Your task to perform on an android device: delete location history Image 0: 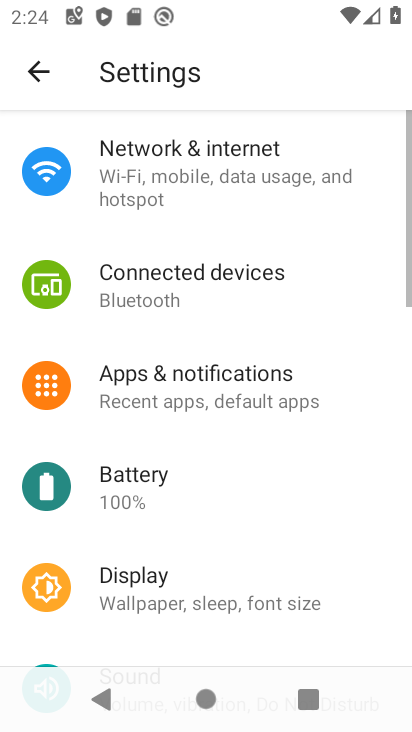
Step 0: press home button
Your task to perform on an android device: delete location history Image 1: 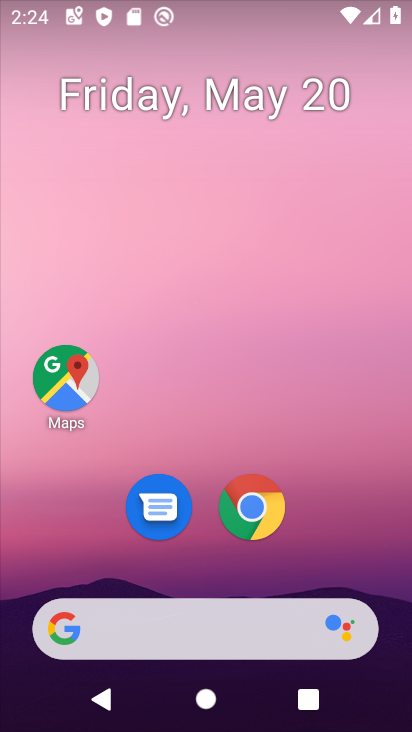
Step 1: drag from (213, 696) to (216, 213)
Your task to perform on an android device: delete location history Image 2: 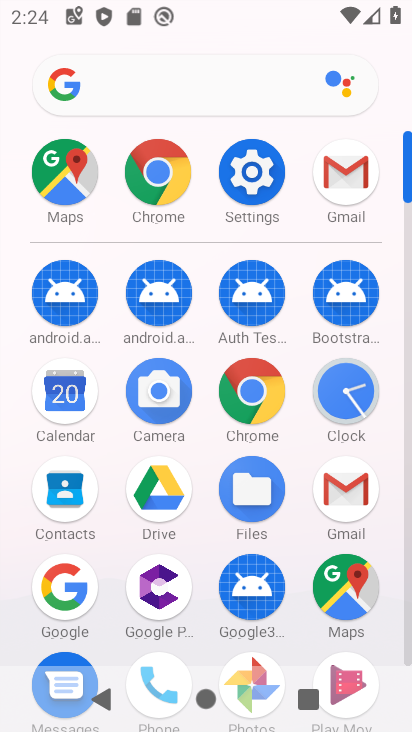
Step 2: click (348, 574)
Your task to perform on an android device: delete location history Image 3: 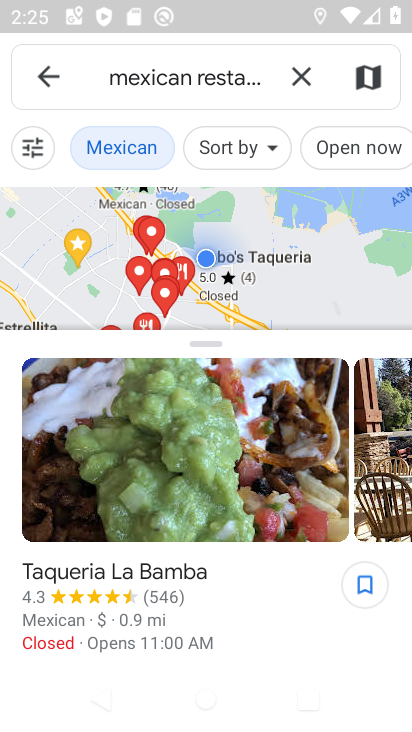
Step 3: click (46, 78)
Your task to perform on an android device: delete location history Image 4: 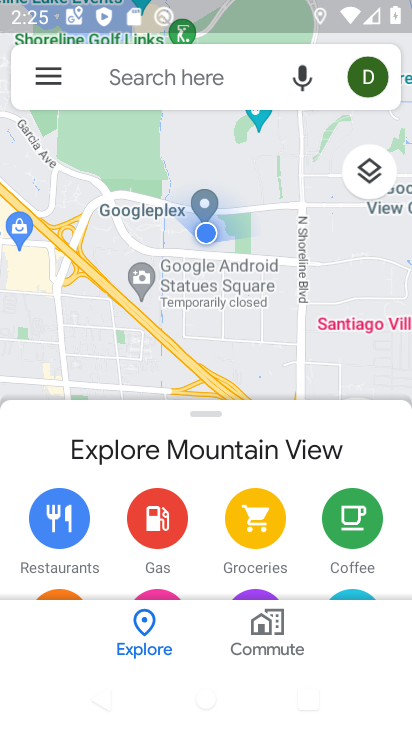
Step 4: click (52, 73)
Your task to perform on an android device: delete location history Image 5: 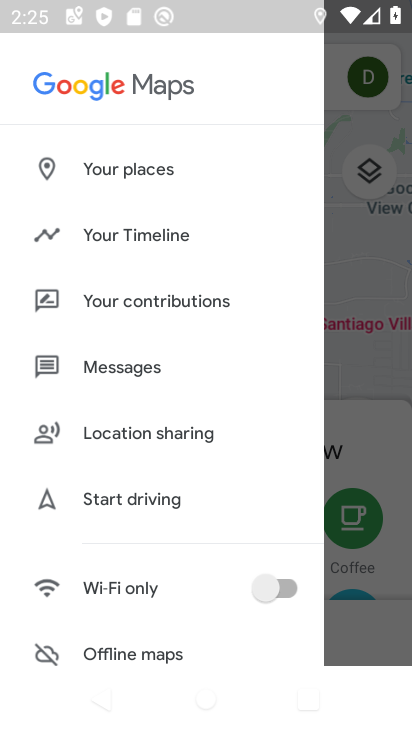
Step 5: click (129, 235)
Your task to perform on an android device: delete location history Image 6: 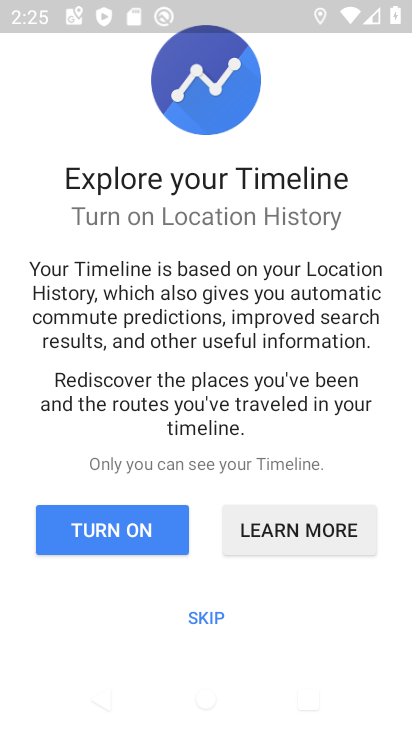
Step 6: click (210, 613)
Your task to perform on an android device: delete location history Image 7: 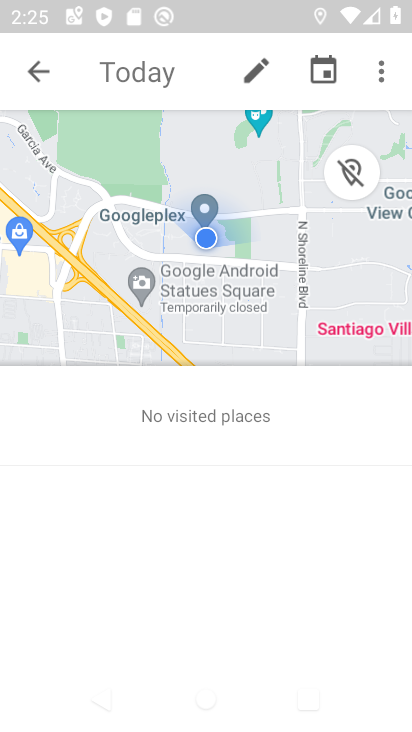
Step 7: click (381, 76)
Your task to perform on an android device: delete location history Image 8: 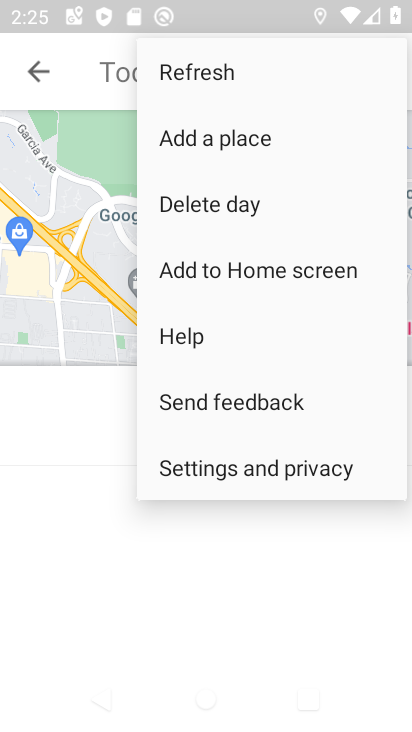
Step 8: click (245, 467)
Your task to perform on an android device: delete location history Image 9: 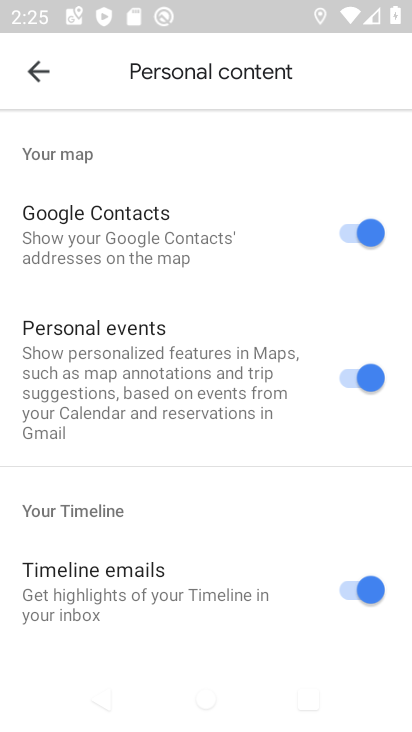
Step 9: drag from (208, 631) to (210, 147)
Your task to perform on an android device: delete location history Image 10: 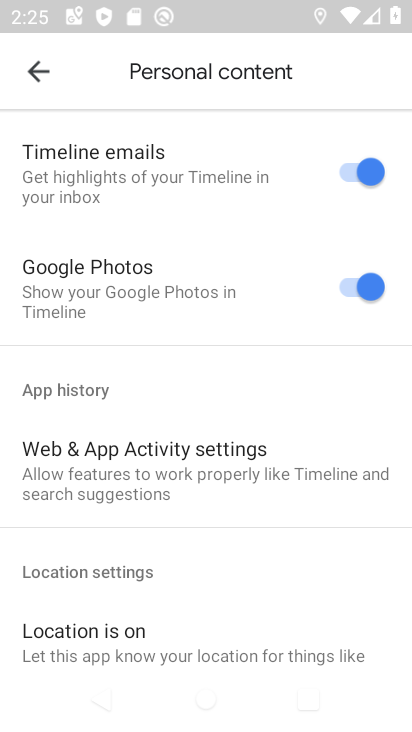
Step 10: drag from (138, 424) to (138, 203)
Your task to perform on an android device: delete location history Image 11: 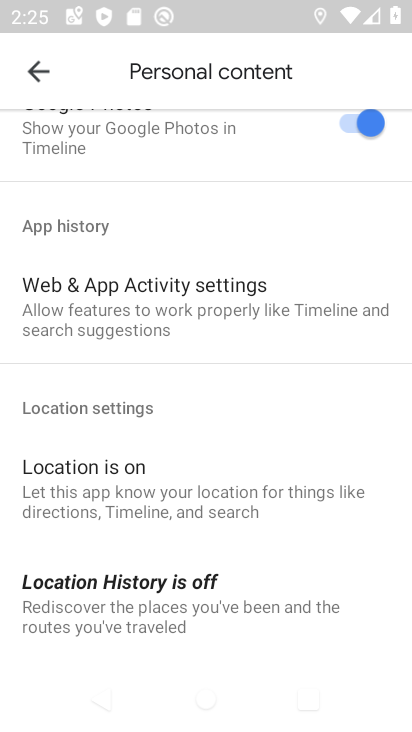
Step 11: drag from (154, 608) to (158, 374)
Your task to perform on an android device: delete location history Image 12: 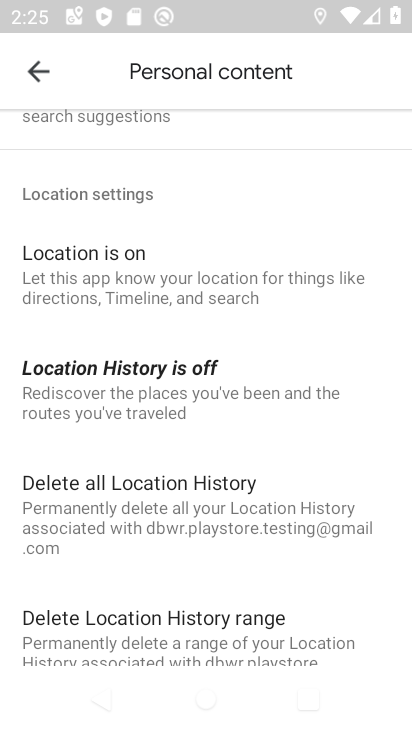
Step 12: click (149, 502)
Your task to perform on an android device: delete location history Image 13: 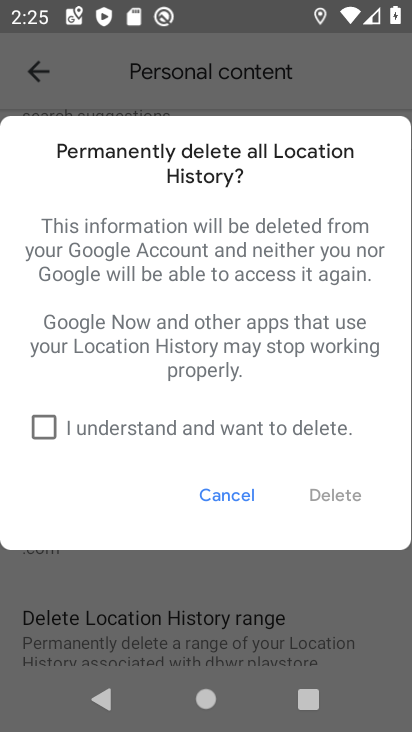
Step 13: click (49, 425)
Your task to perform on an android device: delete location history Image 14: 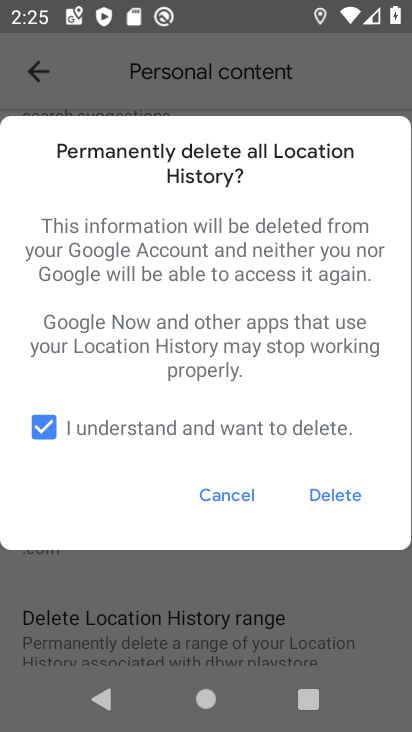
Step 14: click (341, 491)
Your task to perform on an android device: delete location history Image 15: 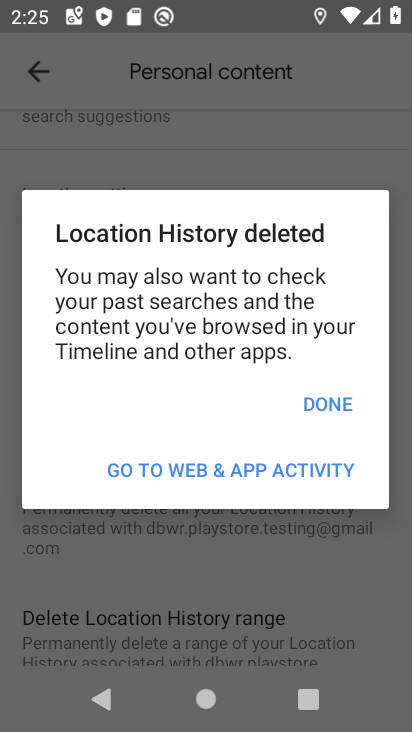
Step 15: click (327, 395)
Your task to perform on an android device: delete location history Image 16: 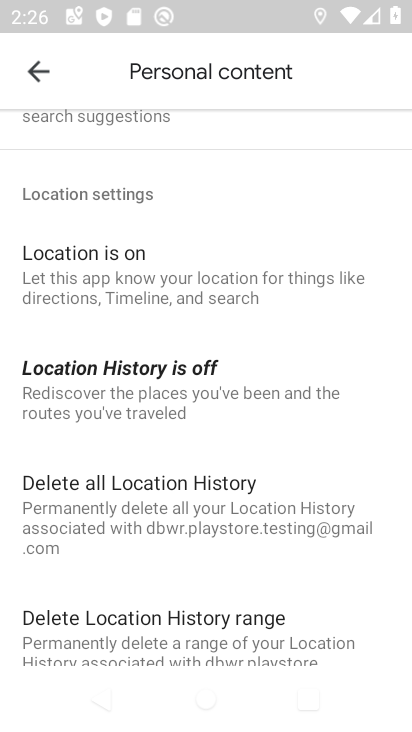
Step 16: task complete